Your task to perform on an android device: stop showing notifications on the lock screen Image 0: 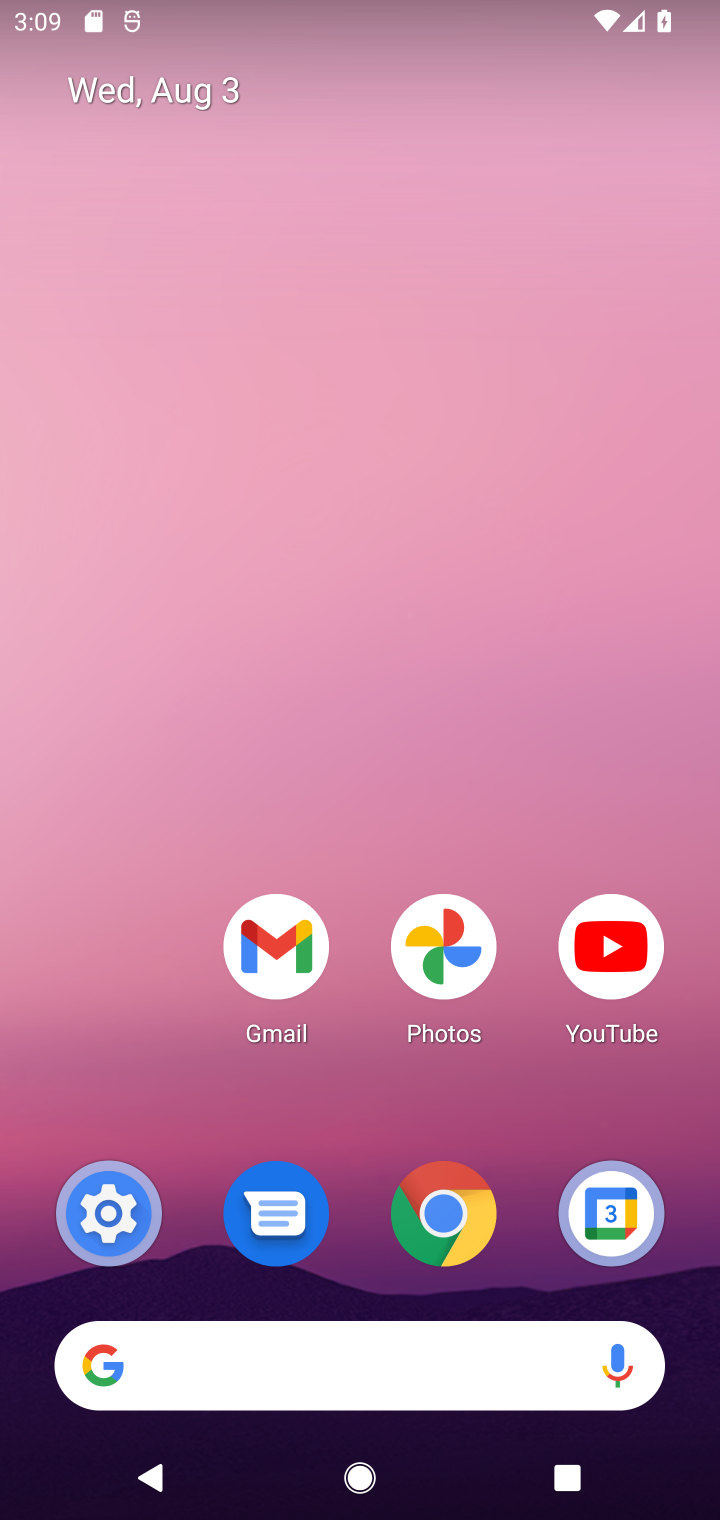
Step 0: click (67, 91)
Your task to perform on an android device: stop showing notifications on the lock screen Image 1: 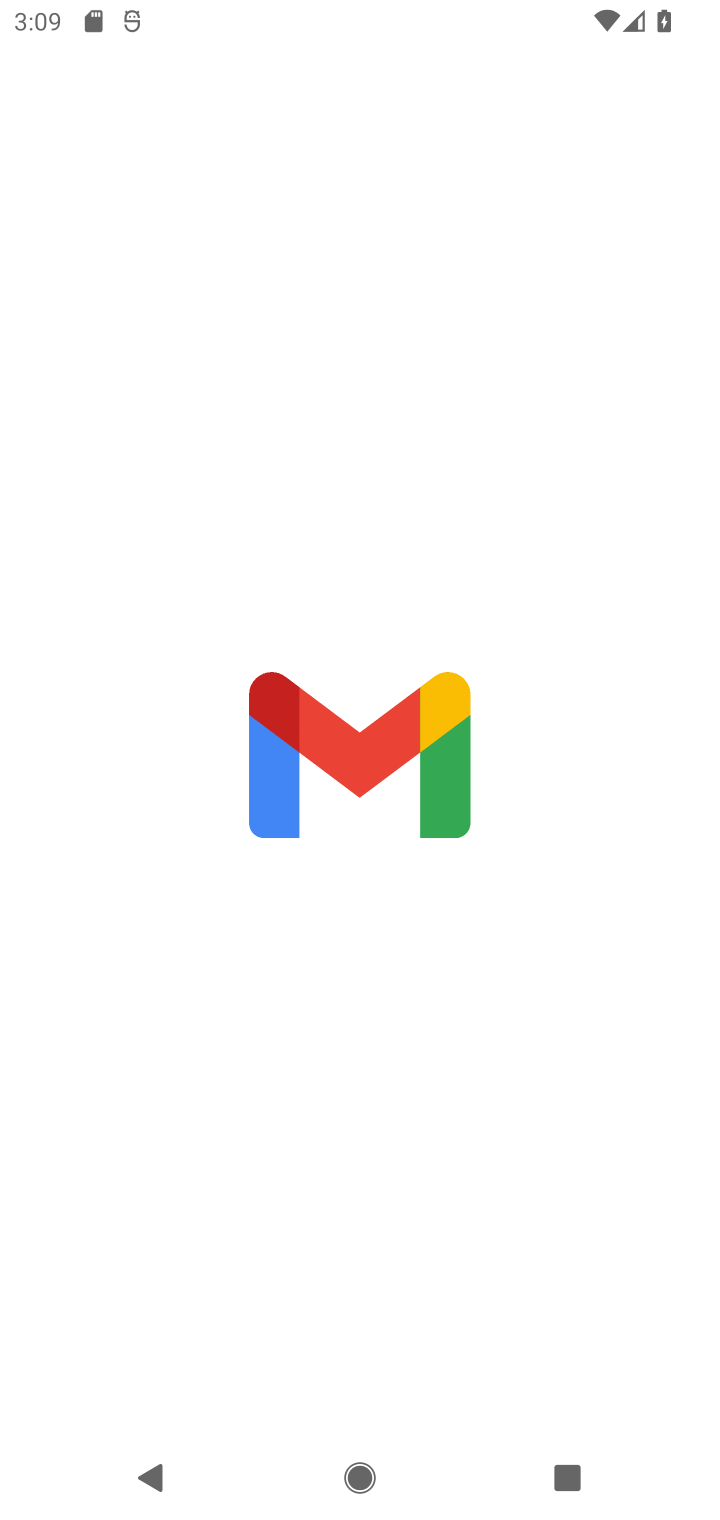
Step 1: press home button
Your task to perform on an android device: stop showing notifications on the lock screen Image 2: 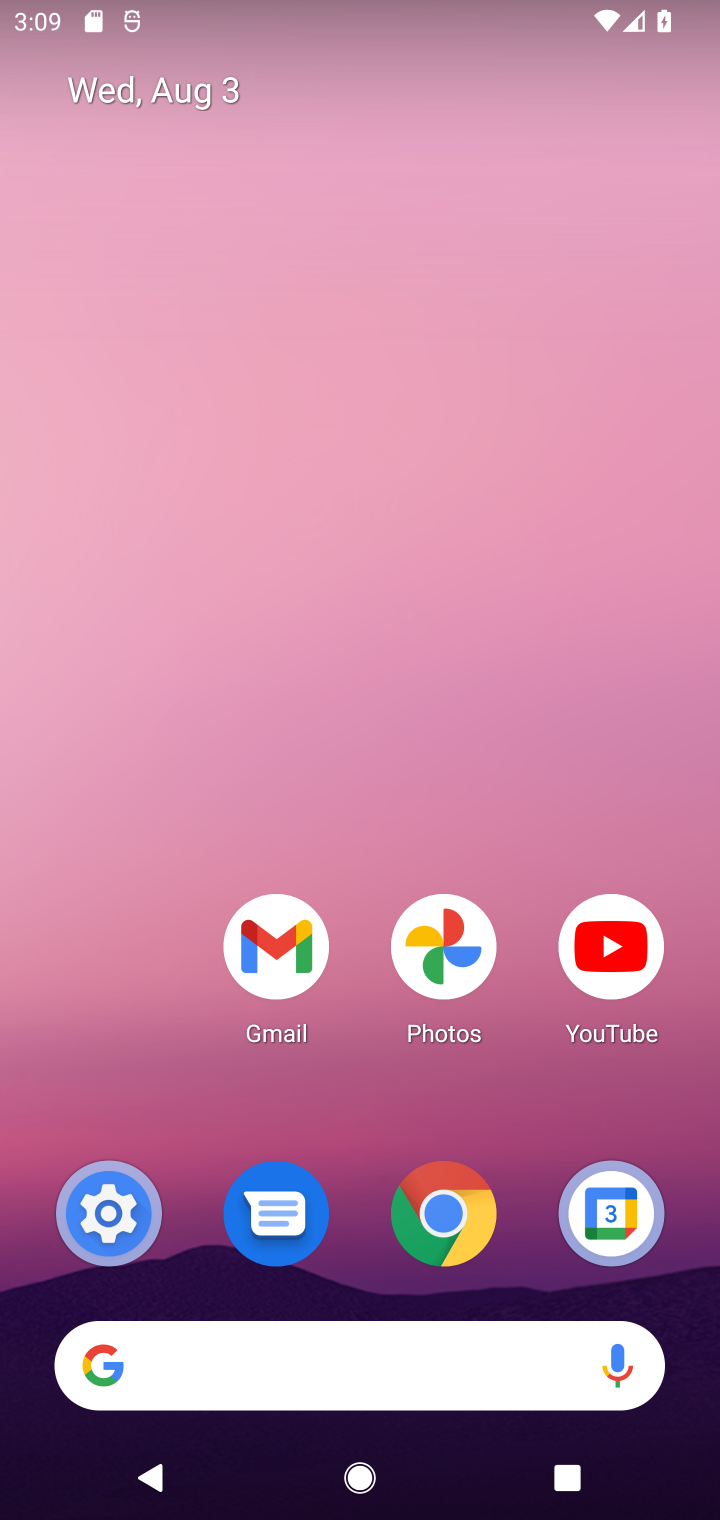
Step 2: drag from (349, 1191) to (46, 19)
Your task to perform on an android device: stop showing notifications on the lock screen Image 3: 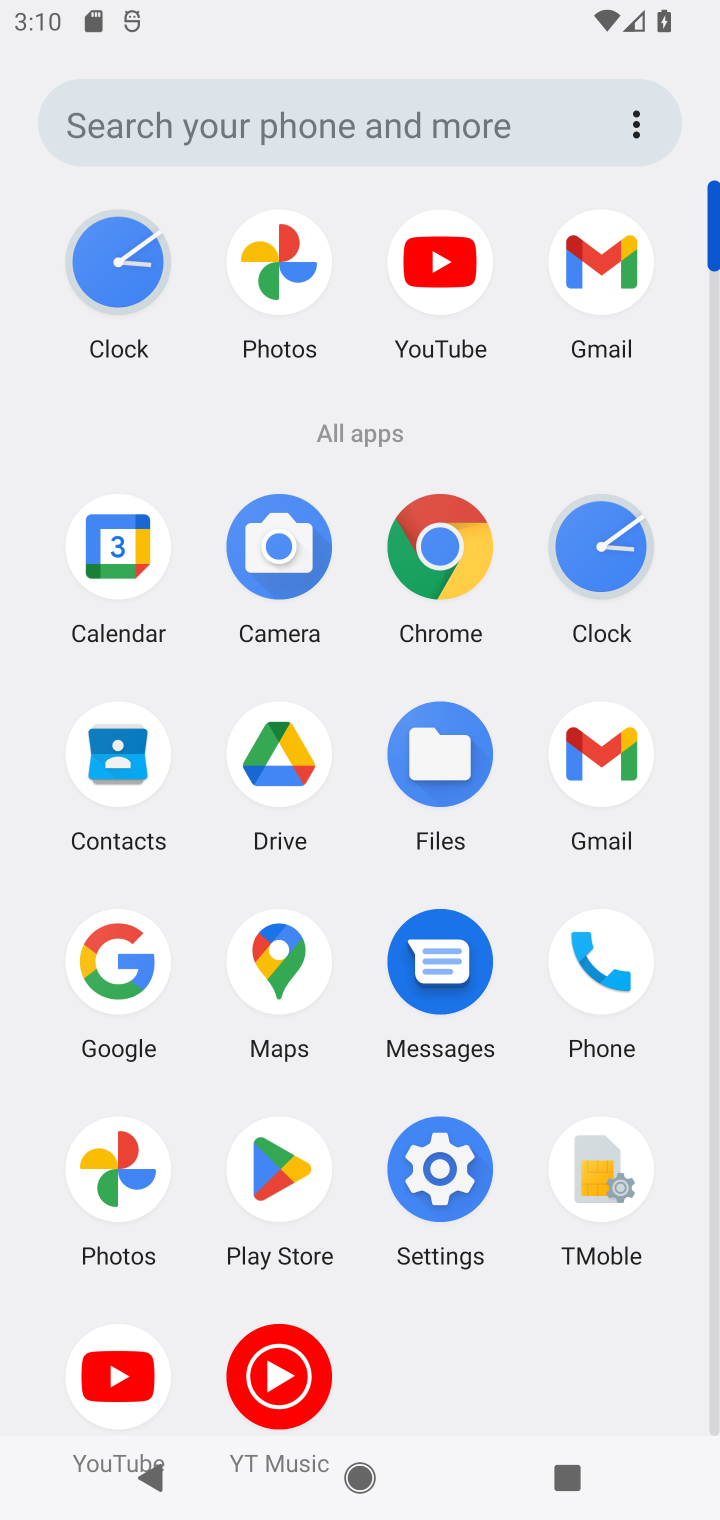
Step 3: click (437, 1170)
Your task to perform on an android device: stop showing notifications on the lock screen Image 4: 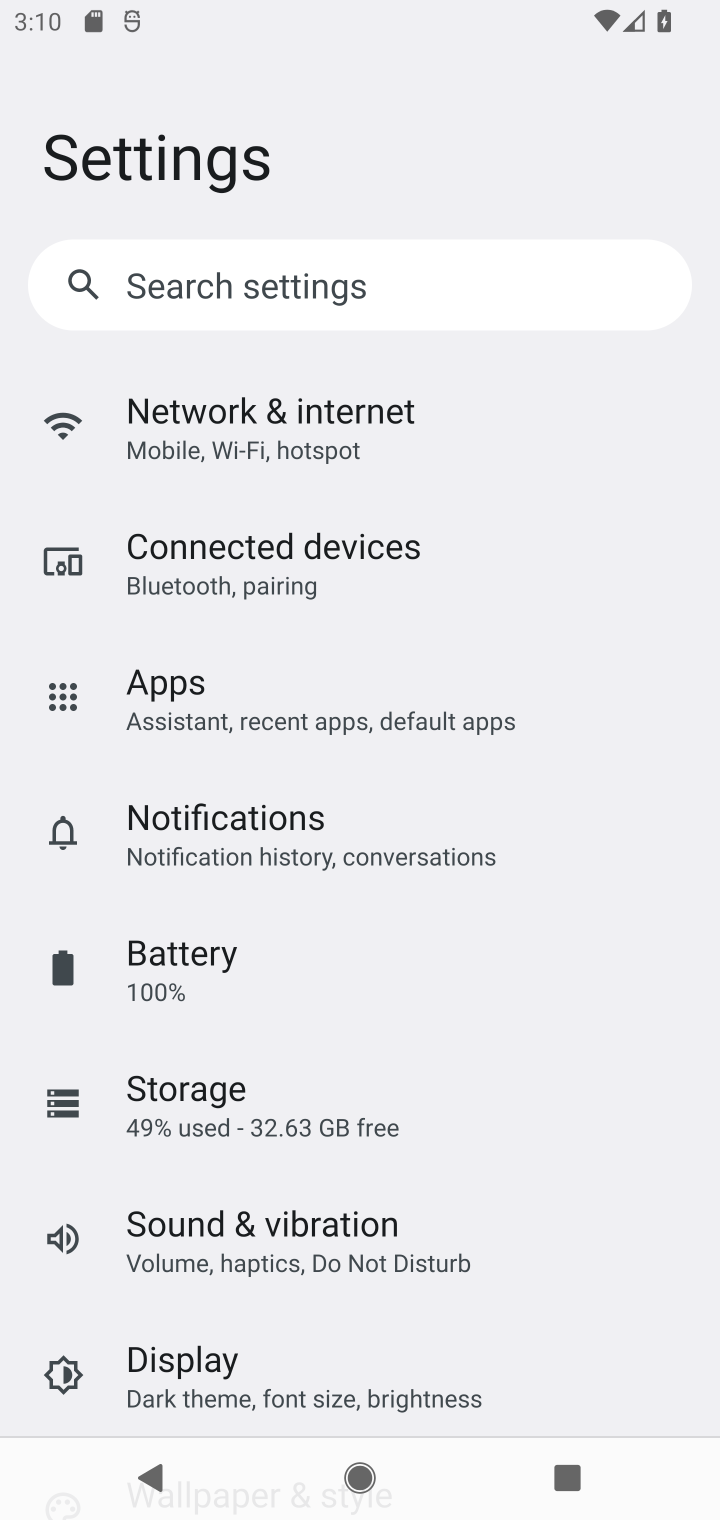
Step 4: click (283, 812)
Your task to perform on an android device: stop showing notifications on the lock screen Image 5: 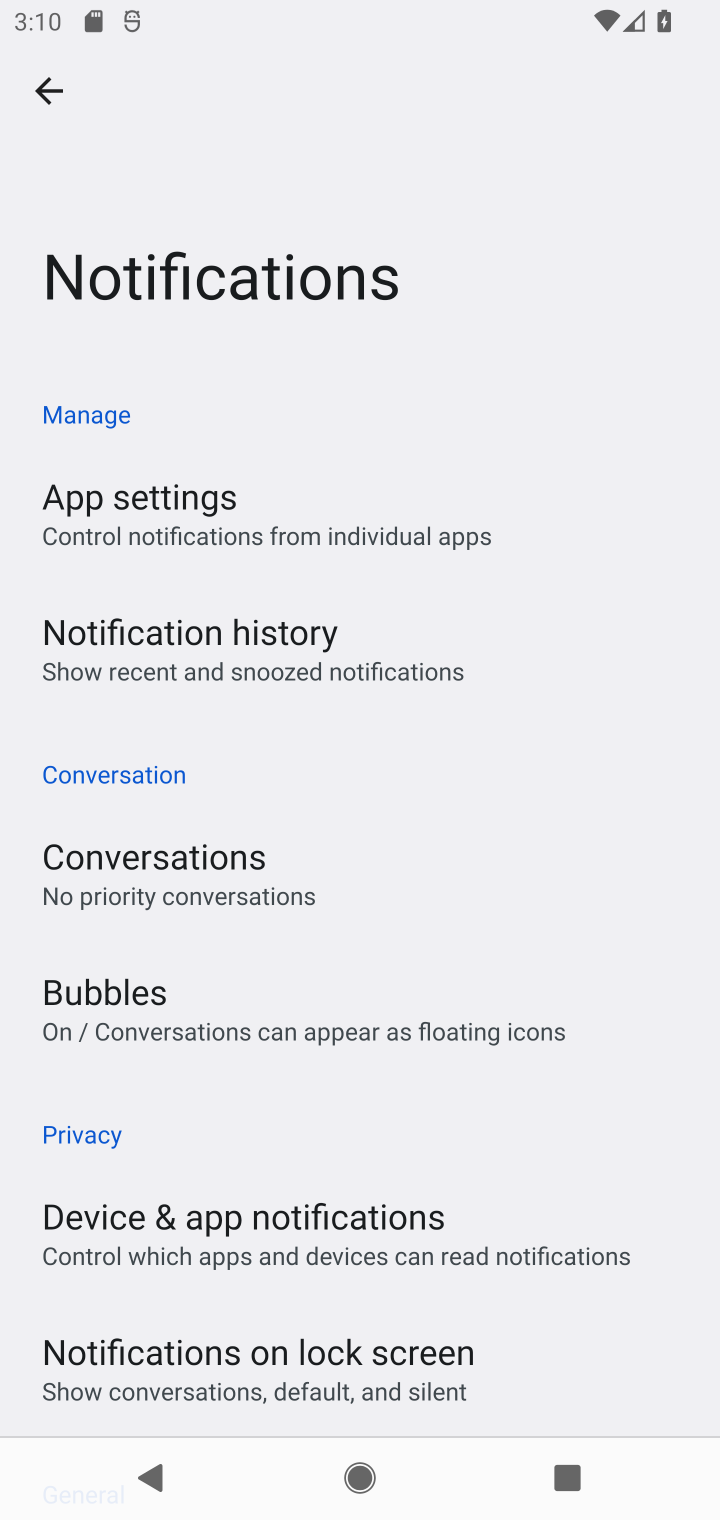
Step 5: click (249, 1343)
Your task to perform on an android device: stop showing notifications on the lock screen Image 6: 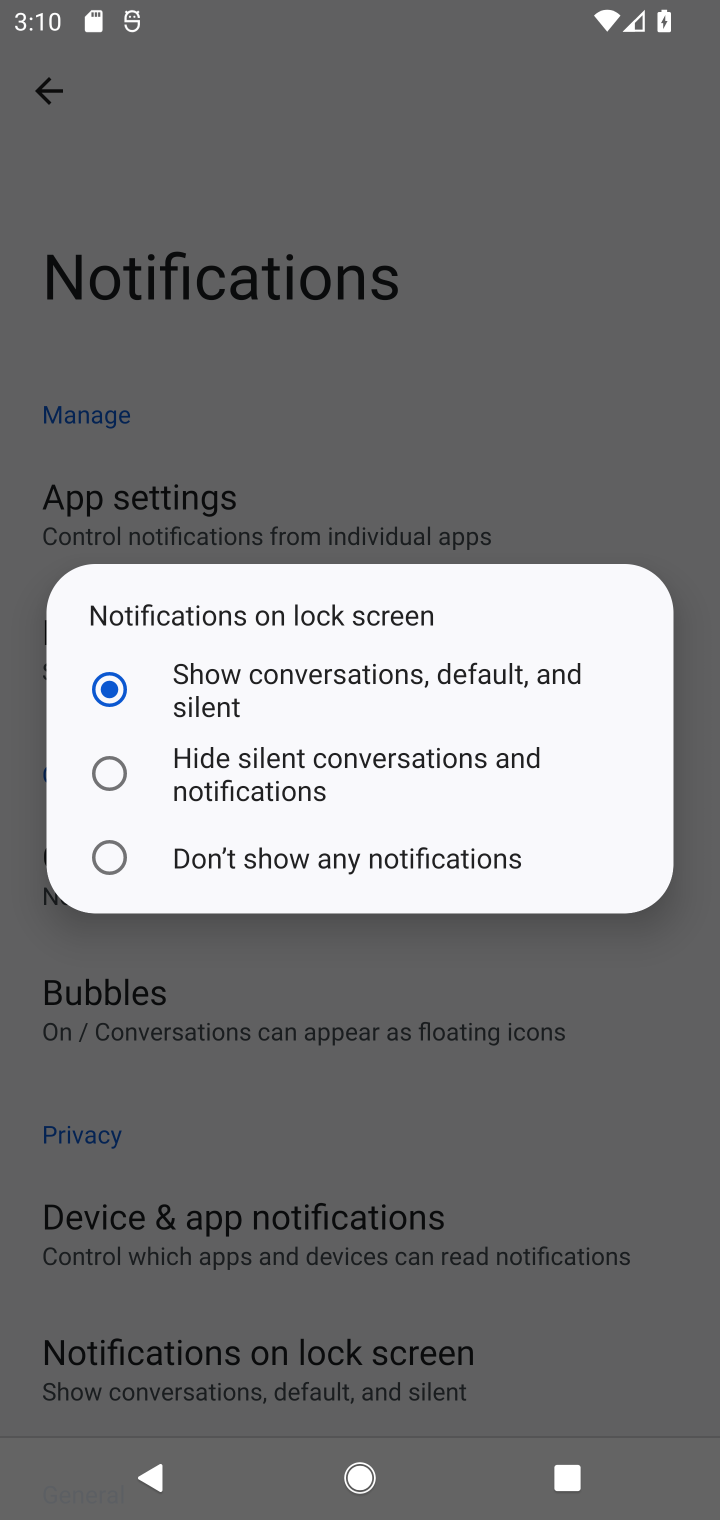
Step 6: click (208, 879)
Your task to perform on an android device: stop showing notifications on the lock screen Image 7: 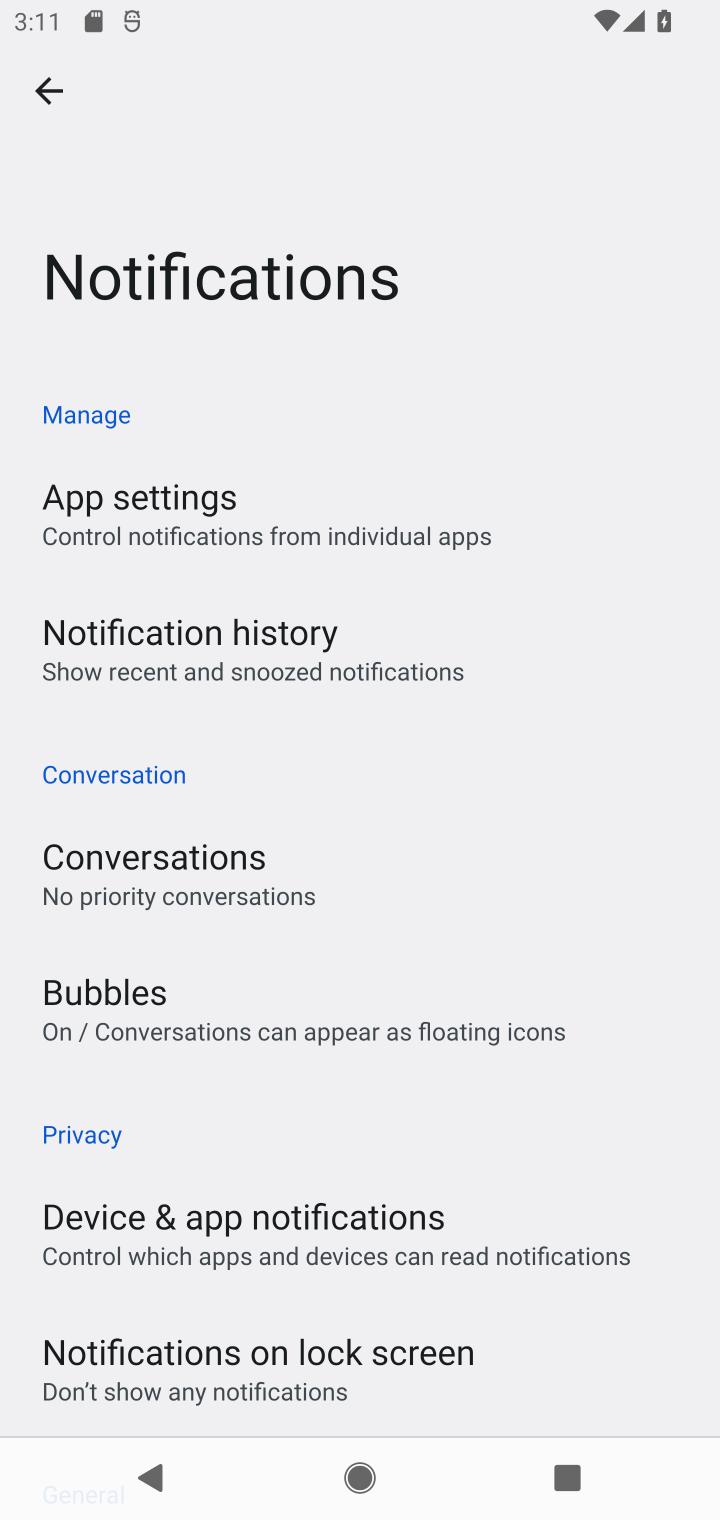
Step 7: task complete